Your task to perform on an android device: Open Google Image 0: 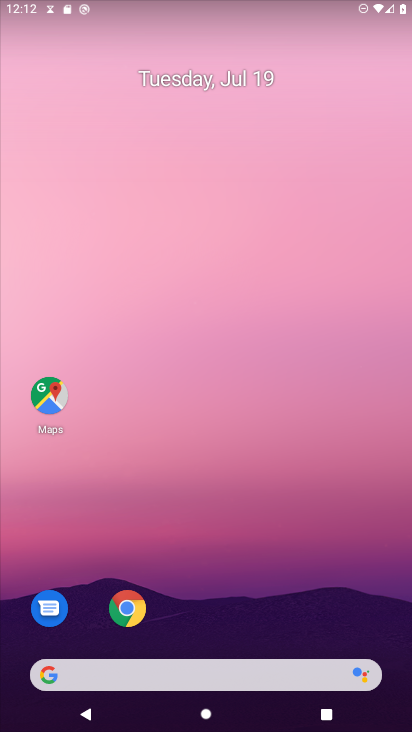
Step 0: drag from (162, 600) to (190, 497)
Your task to perform on an android device: Open Google Image 1: 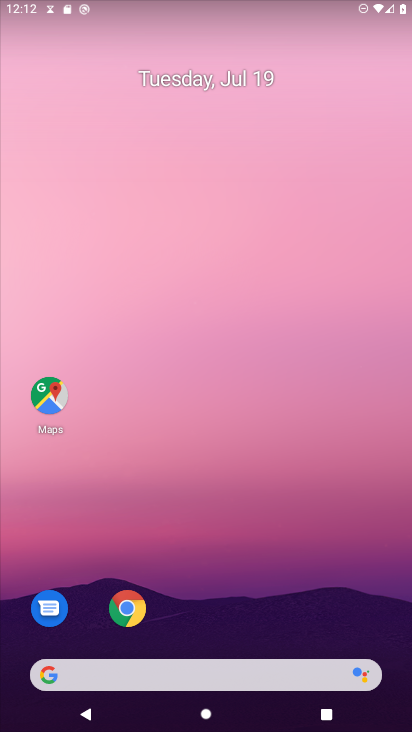
Step 1: drag from (262, 644) to (358, 28)
Your task to perform on an android device: Open Google Image 2: 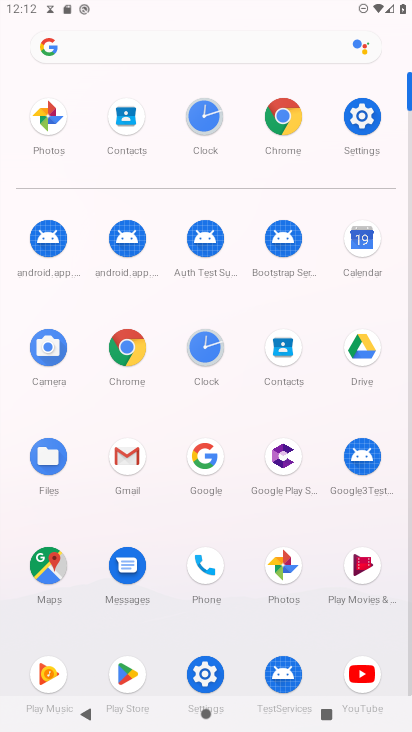
Step 2: click (204, 456)
Your task to perform on an android device: Open Google Image 3: 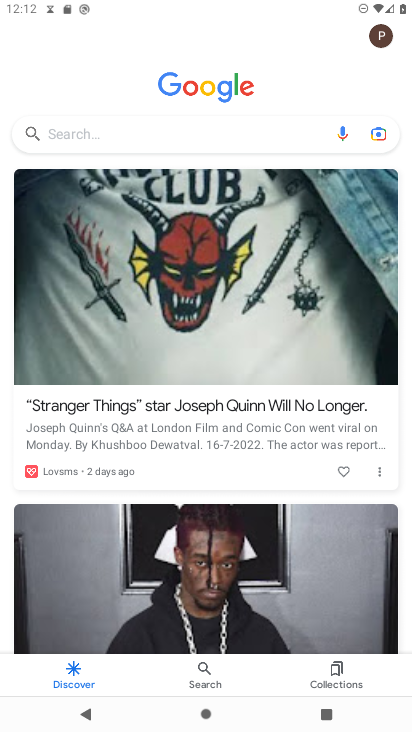
Step 3: task complete